Your task to perform on an android device: Go to Amazon Image 0: 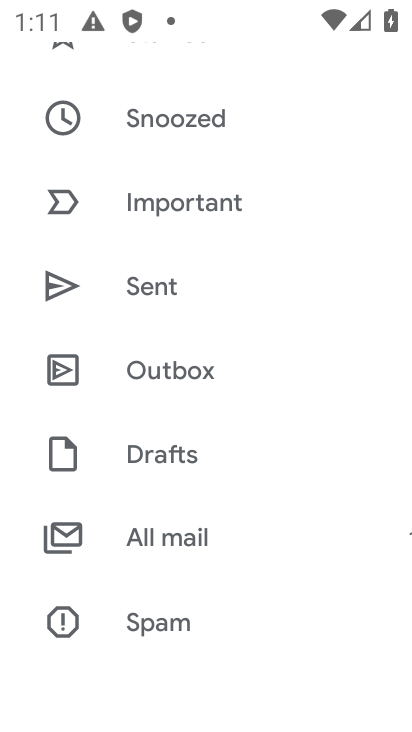
Step 0: press home button
Your task to perform on an android device: Go to Amazon Image 1: 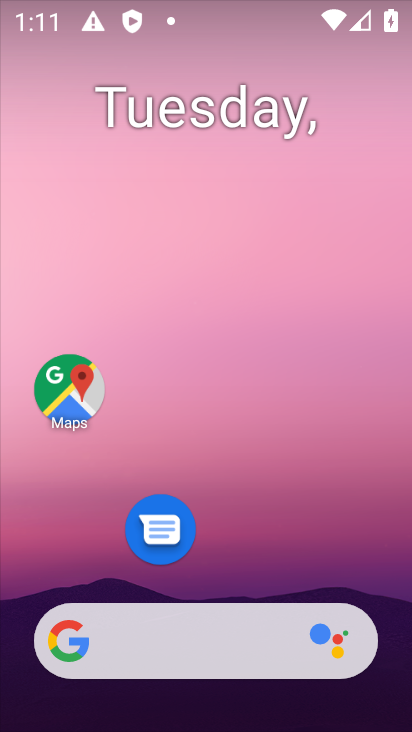
Step 1: drag from (258, 590) to (266, 13)
Your task to perform on an android device: Go to Amazon Image 2: 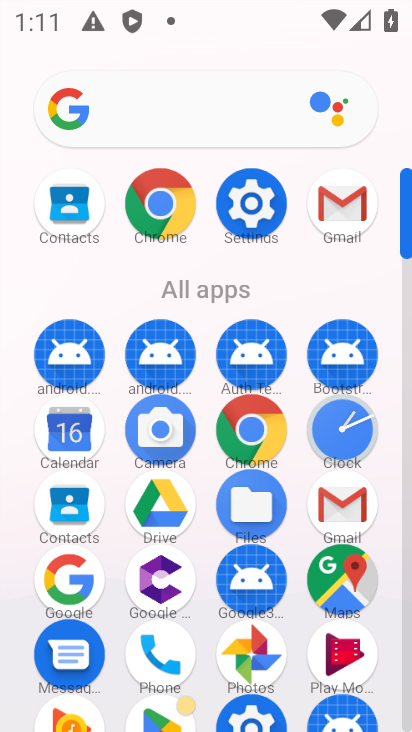
Step 2: click (179, 226)
Your task to perform on an android device: Go to Amazon Image 3: 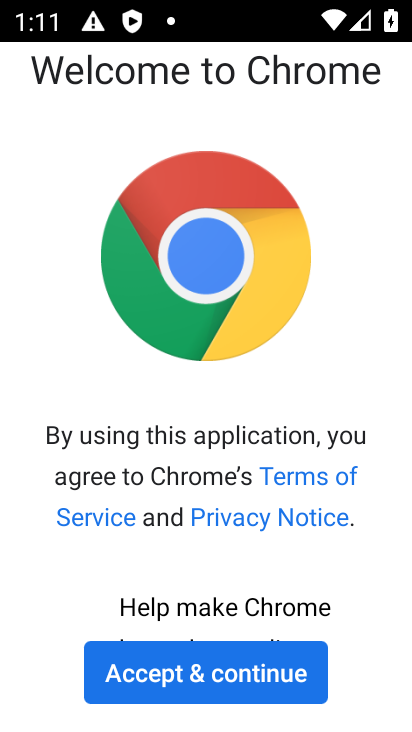
Step 3: click (221, 650)
Your task to perform on an android device: Go to Amazon Image 4: 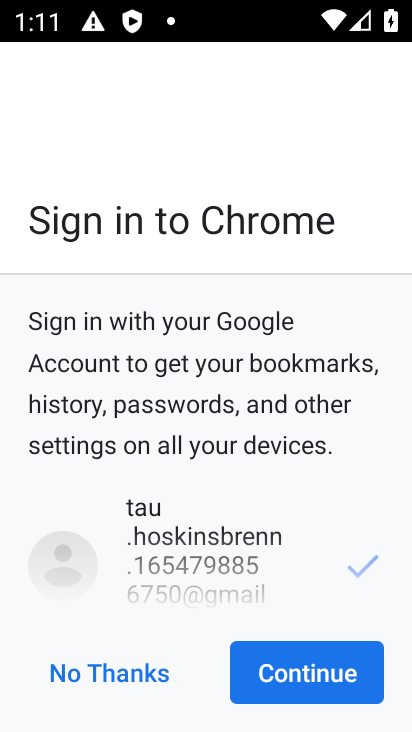
Step 4: click (244, 670)
Your task to perform on an android device: Go to Amazon Image 5: 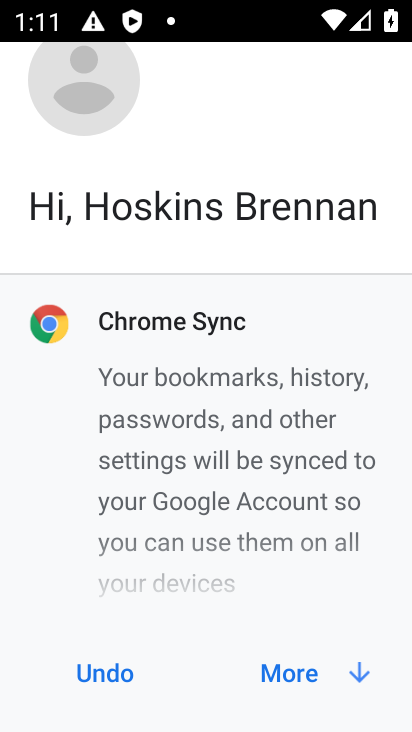
Step 5: click (331, 671)
Your task to perform on an android device: Go to Amazon Image 6: 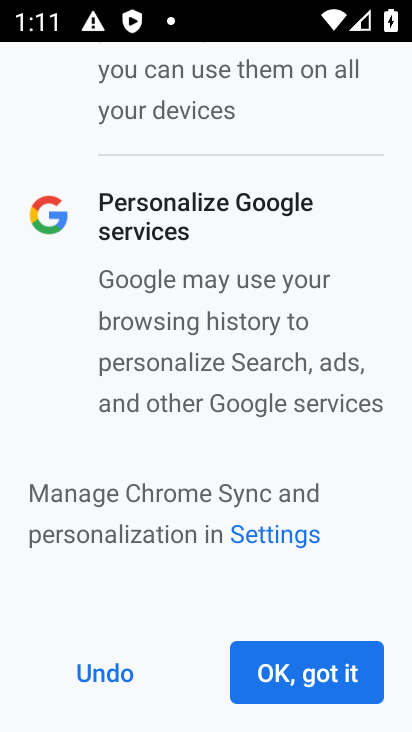
Step 6: click (331, 671)
Your task to perform on an android device: Go to Amazon Image 7: 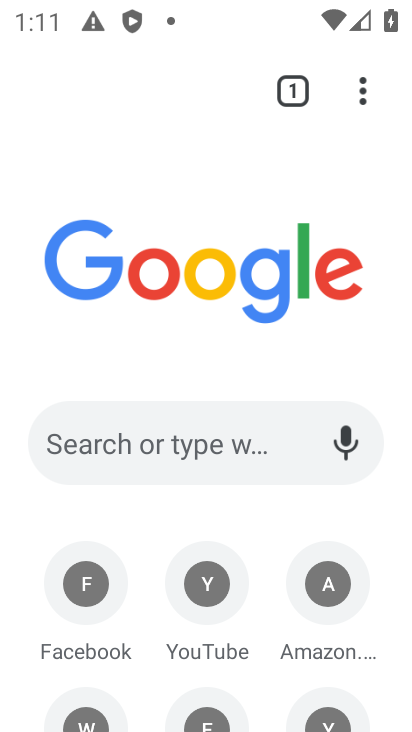
Step 7: click (366, 100)
Your task to perform on an android device: Go to Amazon Image 8: 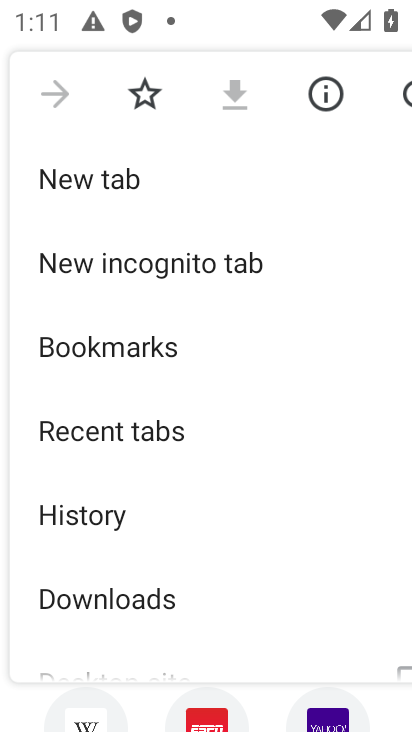
Step 8: click (248, 20)
Your task to perform on an android device: Go to Amazon Image 9: 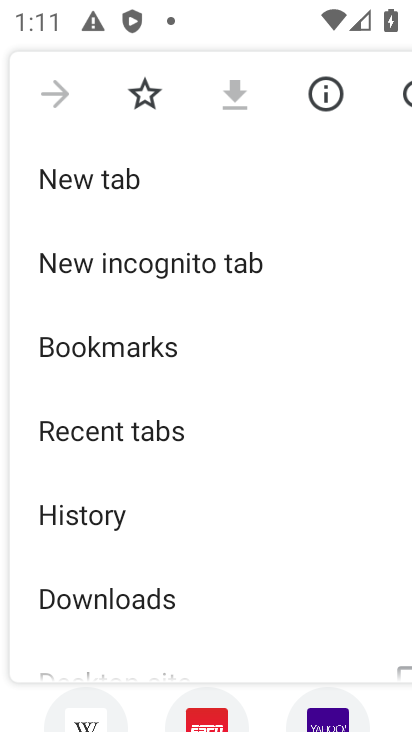
Step 9: click (96, 697)
Your task to perform on an android device: Go to Amazon Image 10: 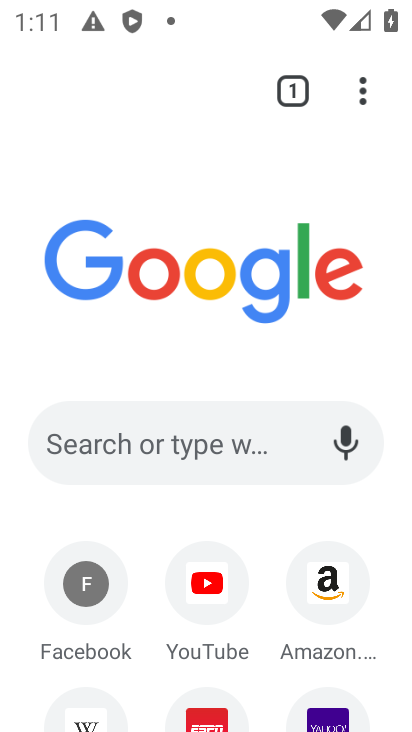
Step 10: click (326, 602)
Your task to perform on an android device: Go to Amazon Image 11: 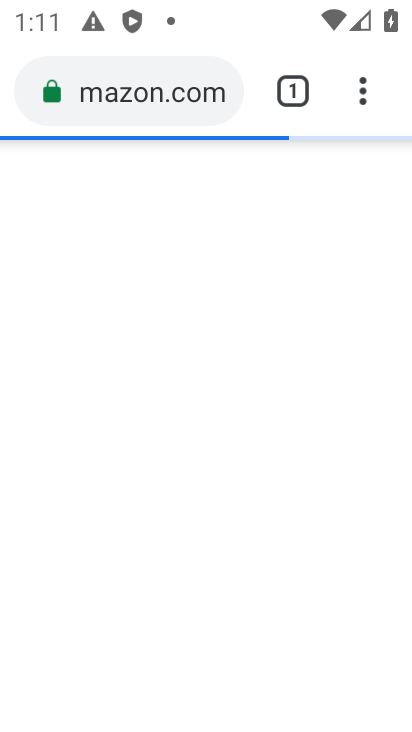
Step 11: task complete